Your task to perform on an android device: turn on location history Image 0: 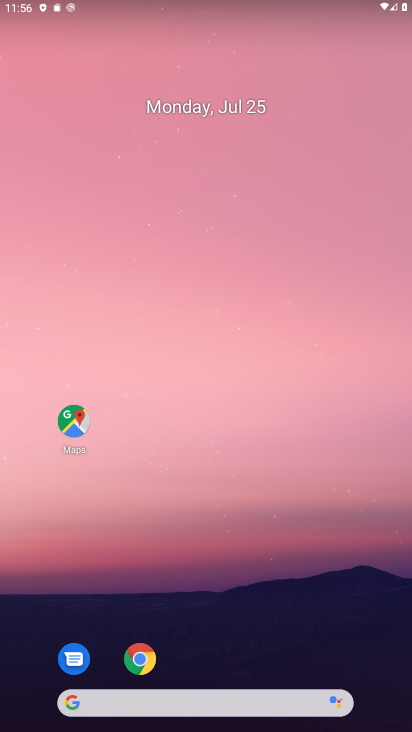
Step 0: press home button
Your task to perform on an android device: turn on location history Image 1: 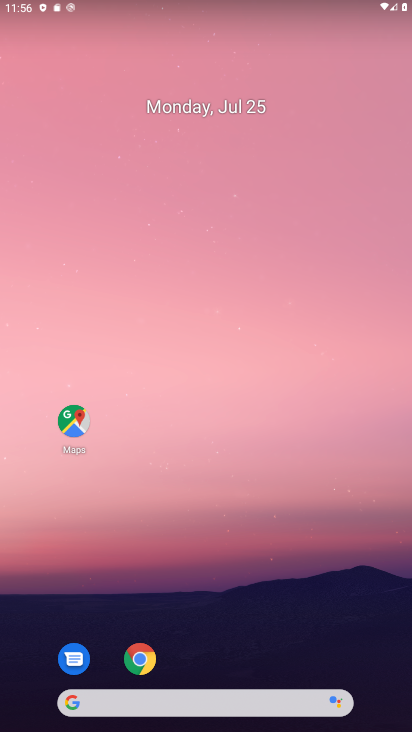
Step 1: drag from (282, 660) to (189, 121)
Your task to perform on an android device: turn on location history Image 2: 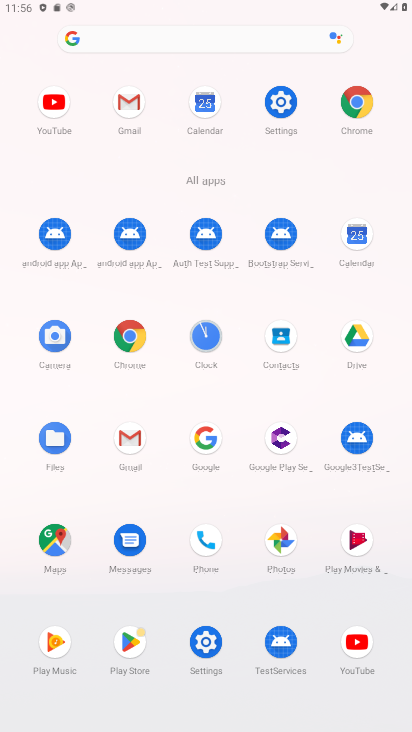
Step 2: click (35, 530)
Your task to perform on an android device: turn on location history Image 3: 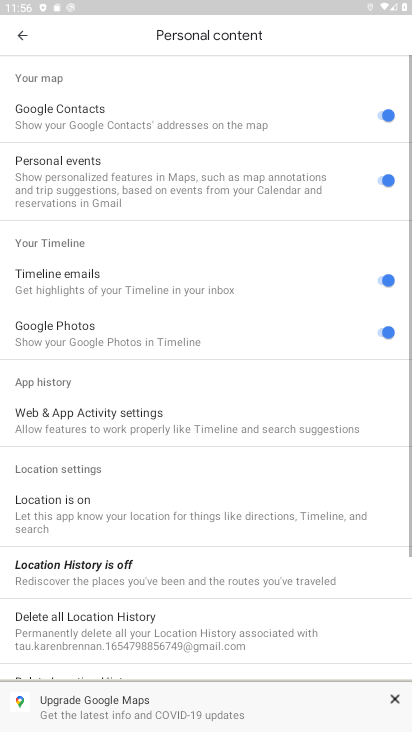
Step 3: click (114, 561)
Your task to perform on an android device: turn on location history Image 4: 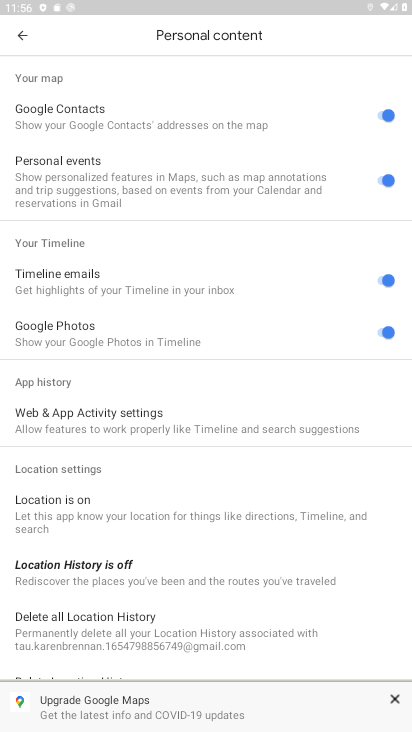
Step 4: click (130, 575)
Your task to perform on an android device: turn on location history Image 5: 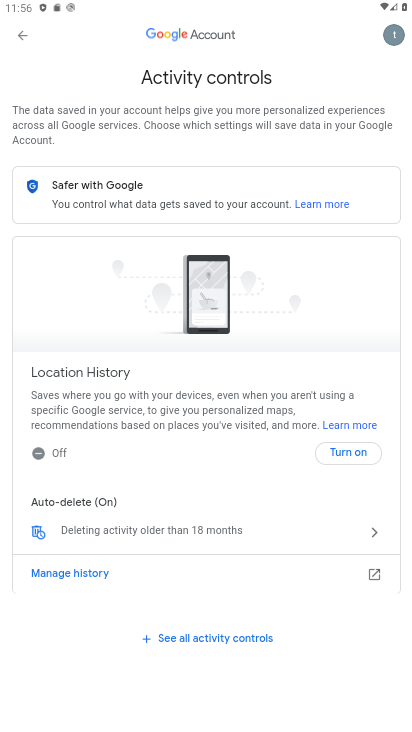
Step 5: click (359, 450)
Your task to perform on an android device: turn on location history Image 6: 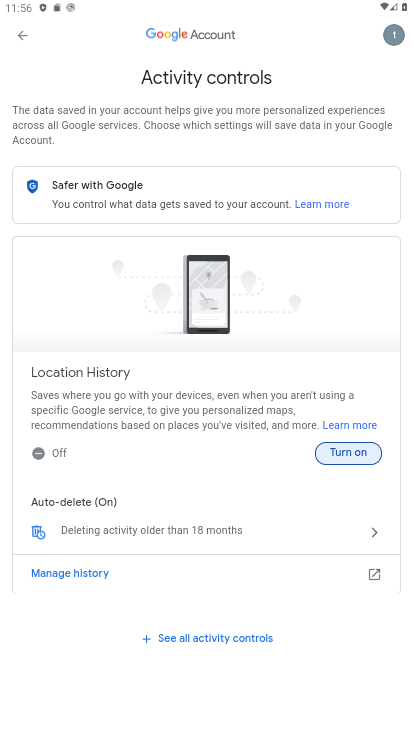
Step 6: click (332, 457)
Your task to perform on an android device: turn on location history Image 7: 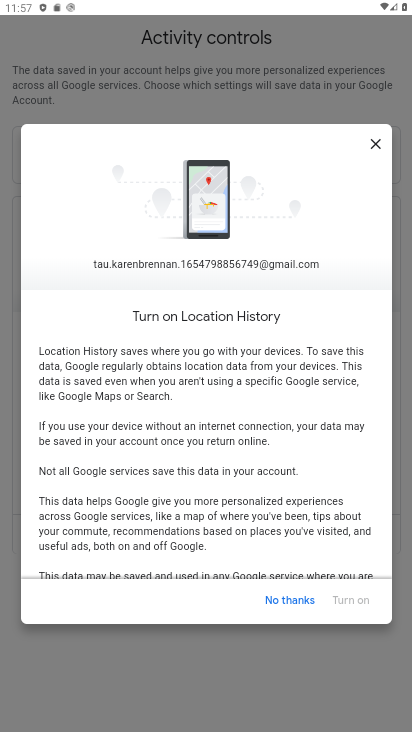
Step 7: drag from (337, 597) to (293, 167)
Your task to perform on an android device: turn on location history Image 8: 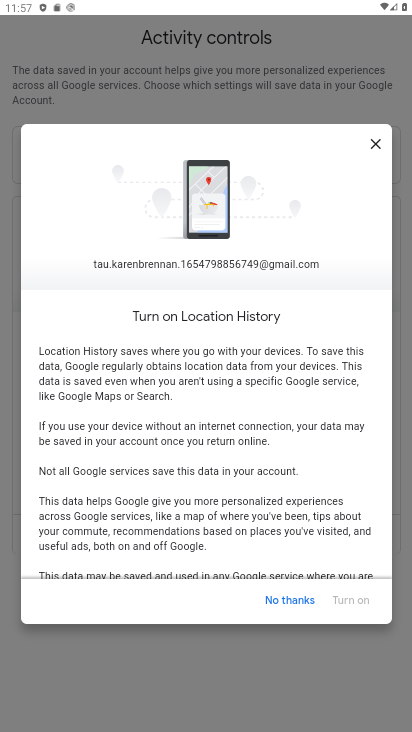
Step 8: drag from (275, 511) to (253, 196)
Your task to perform on an android device: turn on location history Image 9: 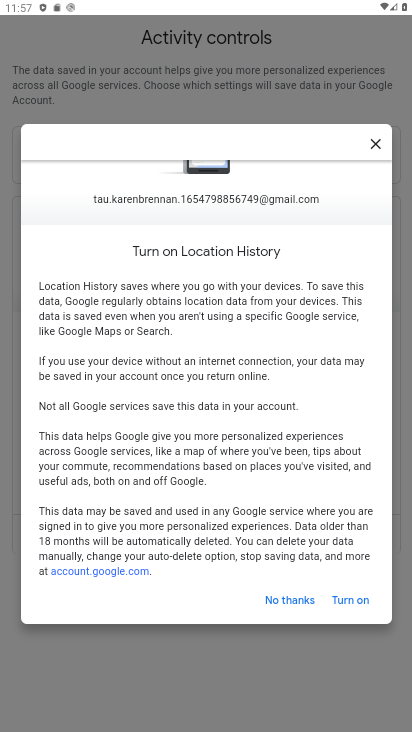
Step 9: click (330, 592)
Your task to perform on an android device: turn on location history Image 10: 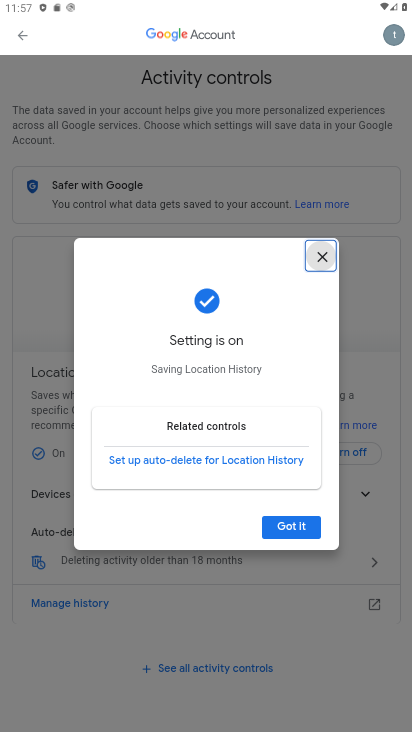
Step 10: click (272, 522)
Your task to perform on an android device: turn on location history Image 11: 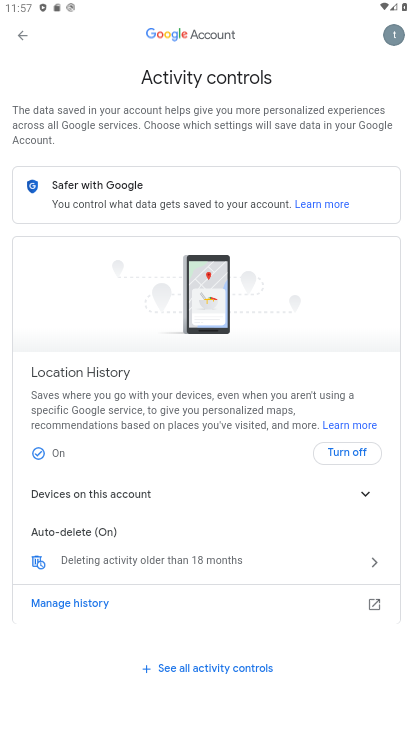
Step 11: task complete